Your task to perform on an android device: find photos in the google photos app Image 0: 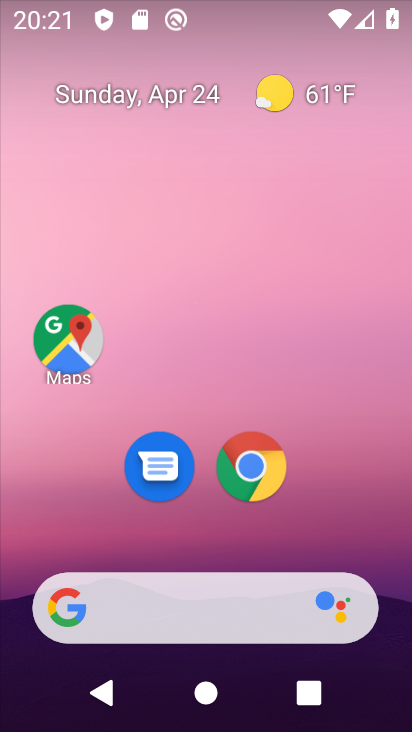
Step 0: drag from (202, 463) to (274, 4)
Your task to perform on an android device: find photos in the google photos app Image 1: 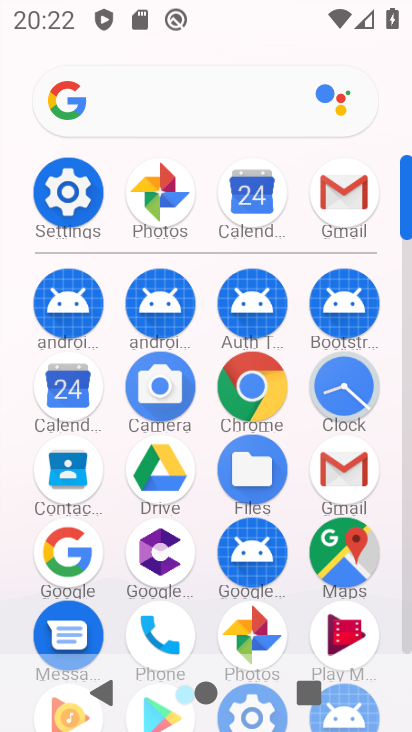
Step 1: click (256, 625)
Your task to perform on an android device: find photos in the google photos app Image 2: 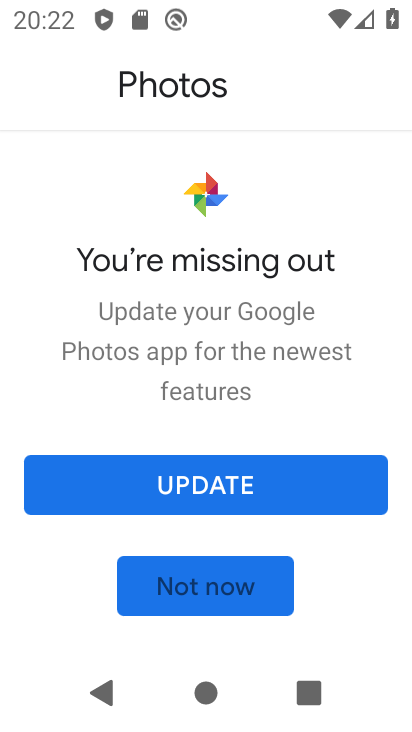
Step 2: click (232, 596)
Your task to perform on an android device: find photos in the google photos app Image 3: 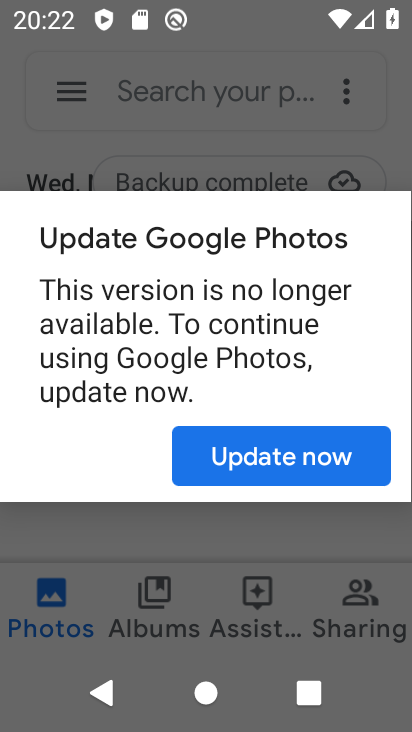
Step 3: click (293, 459)
Your task to perform on an android device: find photos in the google photos app Image 4: 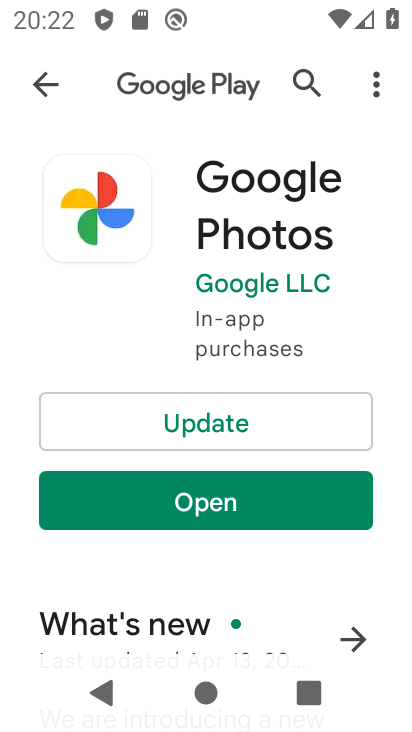
Step 4: click (256, 503)
Your task to perform on an android device: find photos in the google photos app Image 5: 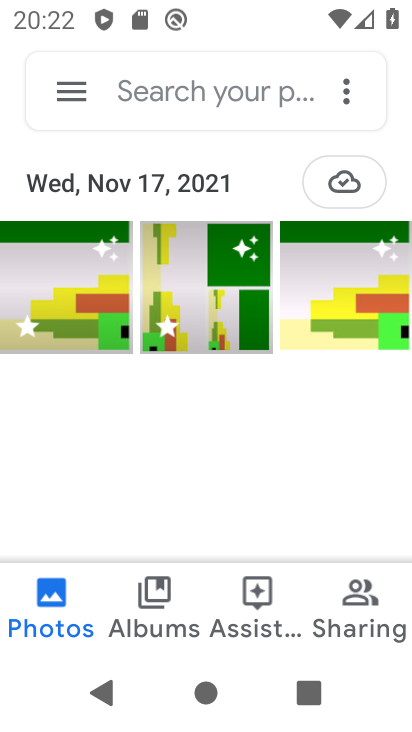
Step 5: click (70, 88)
Your task to perform on an android device: find photos in the google photos app Image 6: 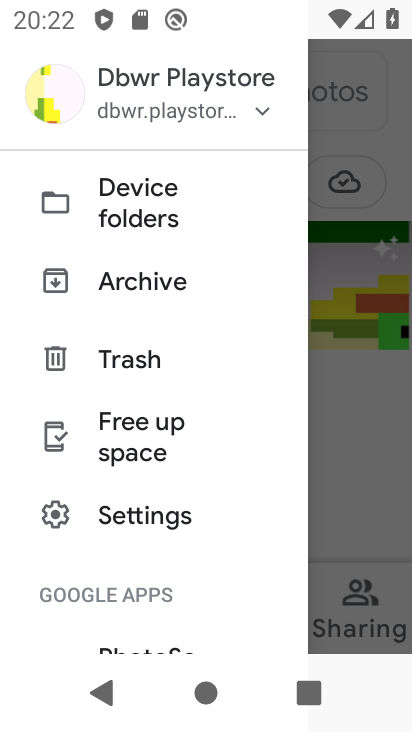
Step 6: click (381, 402)
Your task to perform on an android device: find photos in the google photos app Image 7: 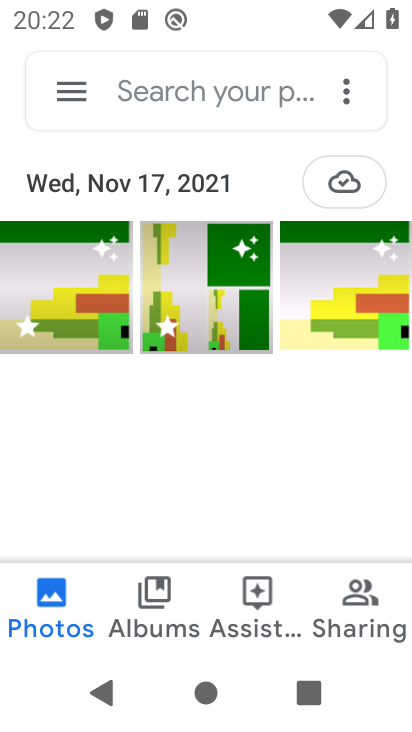
Step 7: press home button
Your task to perform on an android device: find photos in the google photos app Image 8: 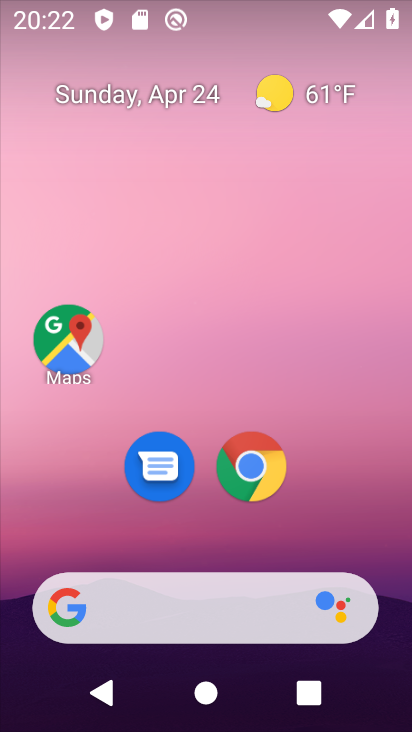
Step 8: drag from (202, 381) to (313, 0)
Your task to perform on an android device: find photos in the google photos app Image 9: 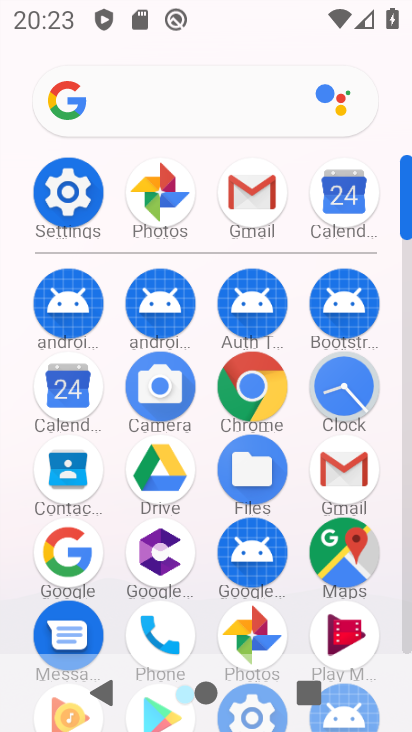
Step 9: click (251, 617)
Your task to perform on an android device: find photos in the google photos app Image 10: 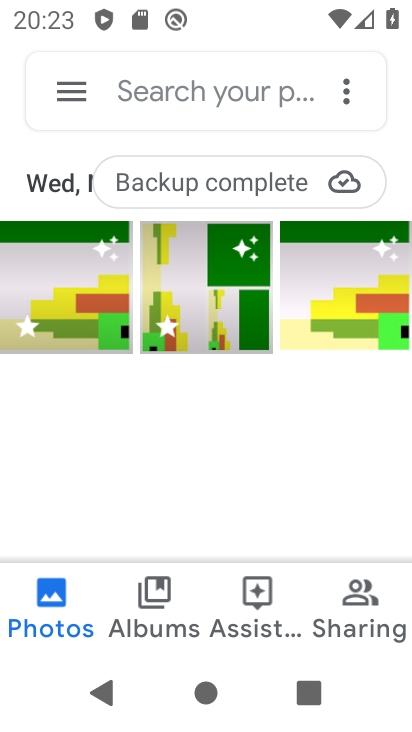
Step 10: click (55, 283)
Your task to perform on an android device: find photos in the google photos app Image 11: 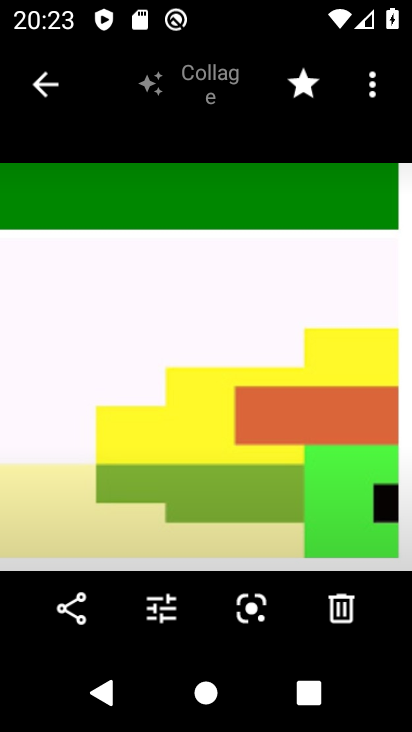
Step 11: task complete